Your task to perform on an android device: Open calendar and show me the third week of next month Image 0: 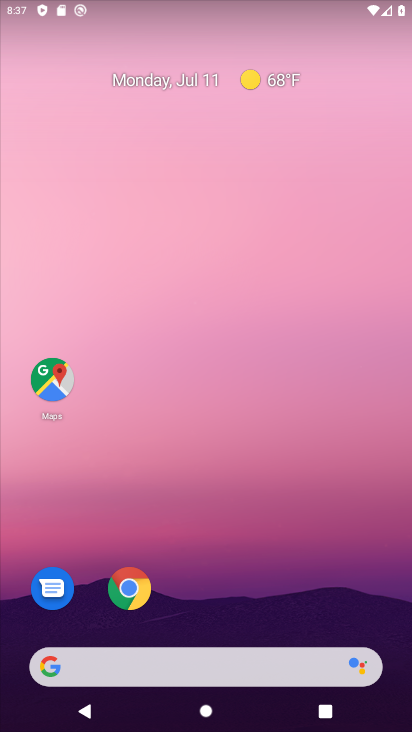
Step 0: drag from (207, 586) to (205, 64)
Your task to perform on an android device: Open calendar and show me the third week of next month Image 1: 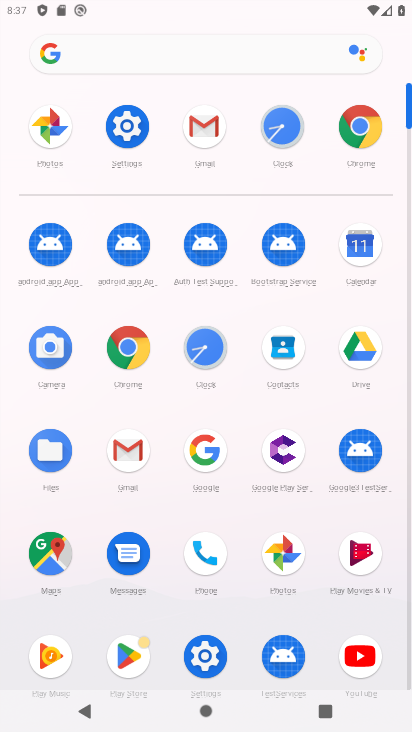
Step 1: click (348, 248)
Your task to perform on an android device: Open calendar and show me the third week of next month Image 2: 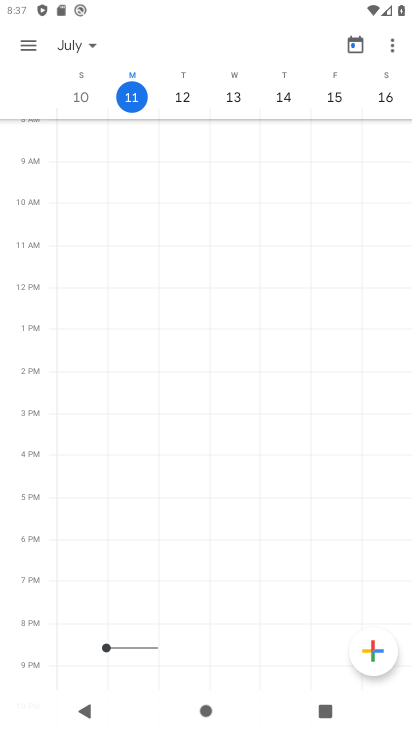
Step 2: click (26, 49)
Your task to perform on an android device: Open calendar and show me the third week of next month Image 3: 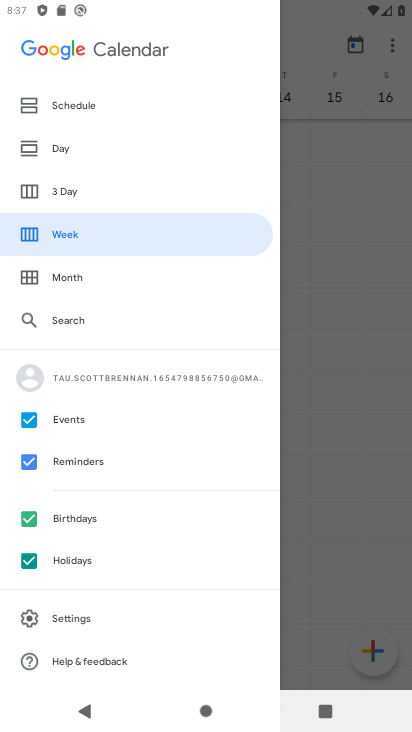
Step 3: click (83, 229)
Your task to perform on an android device: Open calendar and show me the third week of next month Image 4: 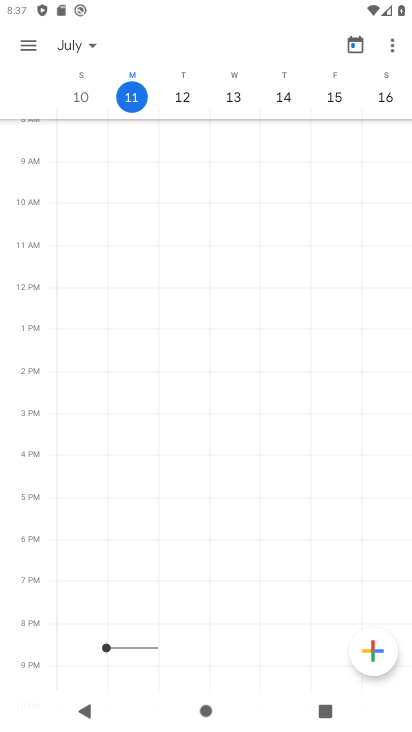
Step 4: task complete